Your task to perform on an android device: Open the camera Image 0: 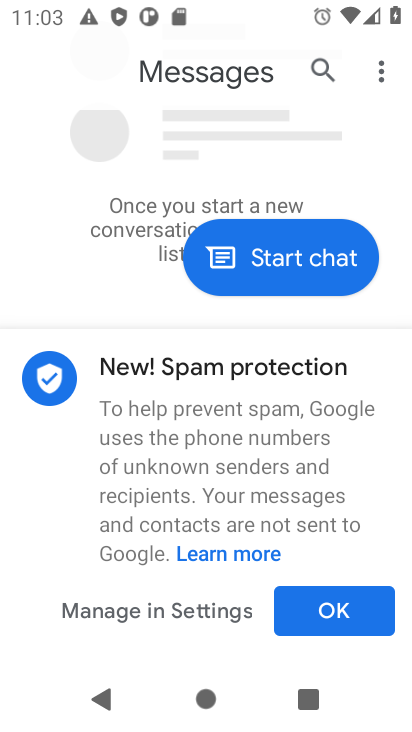
Step 0: press home button
Your task to perform on an android device: Open the camera Image 1: 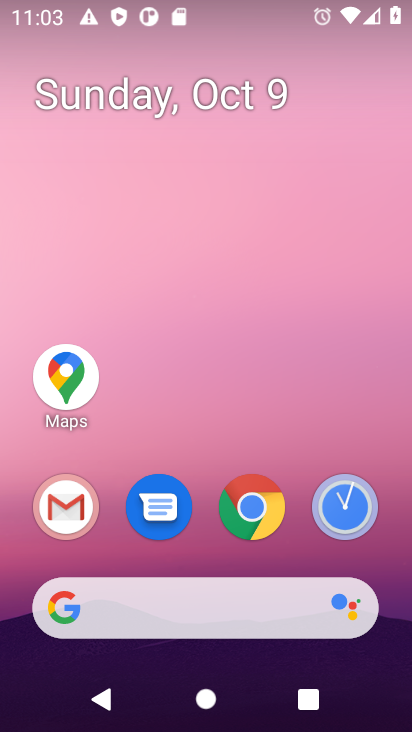
Step 1: drag from (359, 442) to (347, 83)
Your task to perform on an android device: Open the camera Image 2: 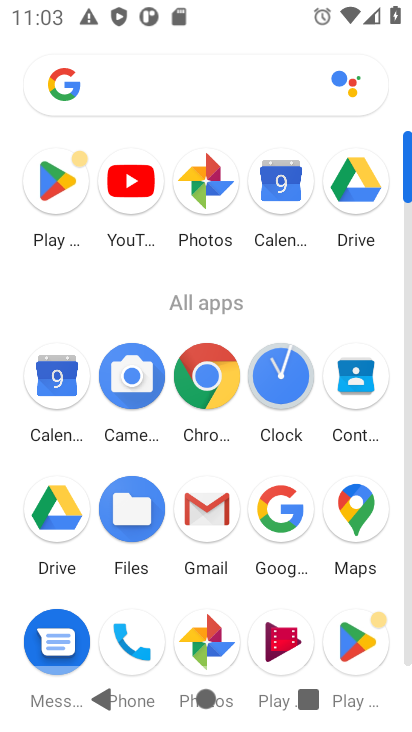
Step 2: drag from (384, 572) to (374, 280)
Your task to perform on an android device: Open the camera Image 3: 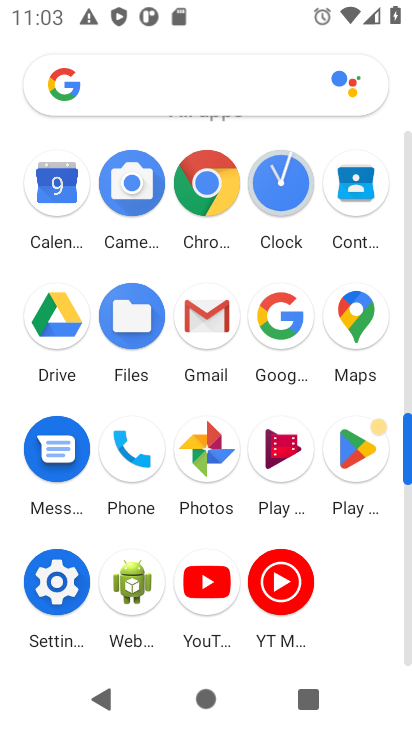
Step 3: drag from (308, 152) to (326, 262)
Your task to perform on an android device: Open the camera Image 4: 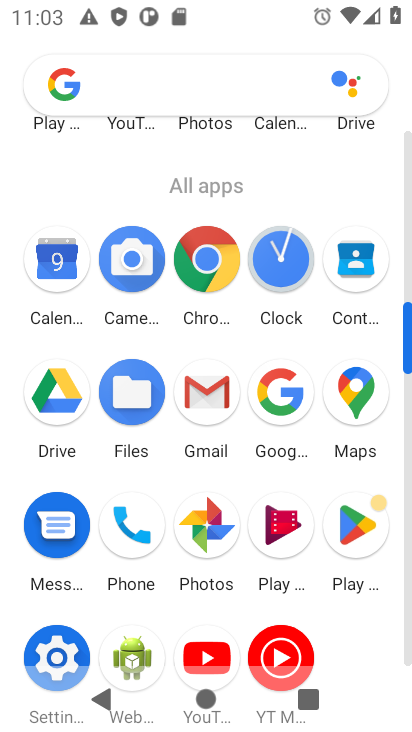
Step 4: drag from (328, 150) to (329, 320)
Your task to perform on an android device: Open the camera Image 5: 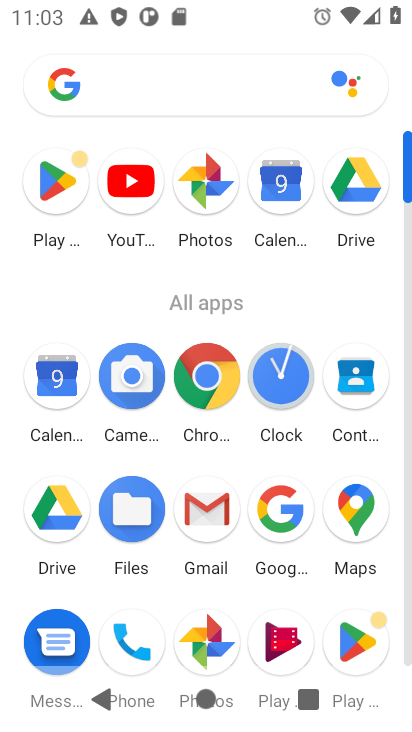
Step 5: click (315, 137)
Your task to perform on an android device: Open the camera Image 6: 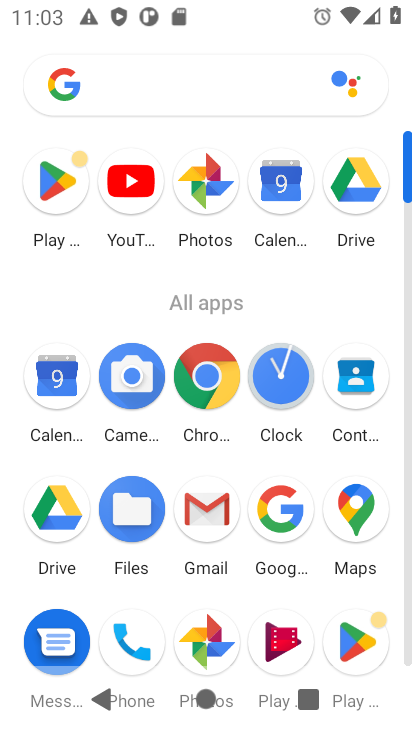
Step 6: task complete